Your task to perform on an android device: turn pop-ups on in chrome Image 0: 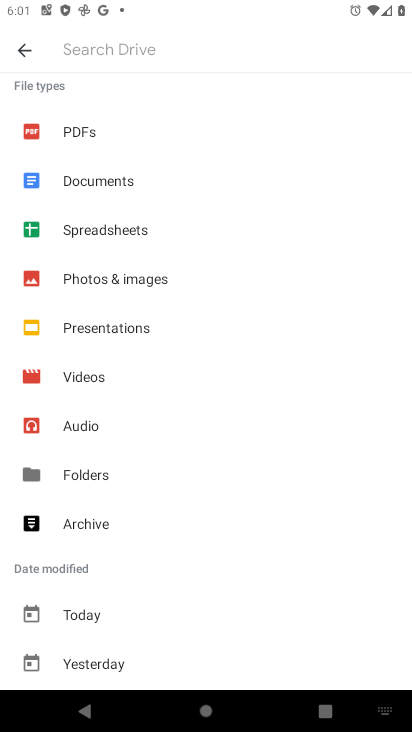
Step 0: press back button
Your task to perform on an android device: turn pop-ups on in chrome Image 1: 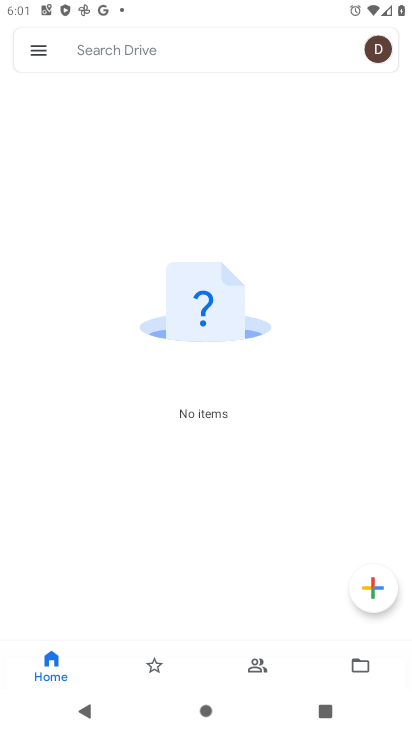
Step 1: press back button
Your task to perform on an android device: turn pop-ups on in chrome Image 2: 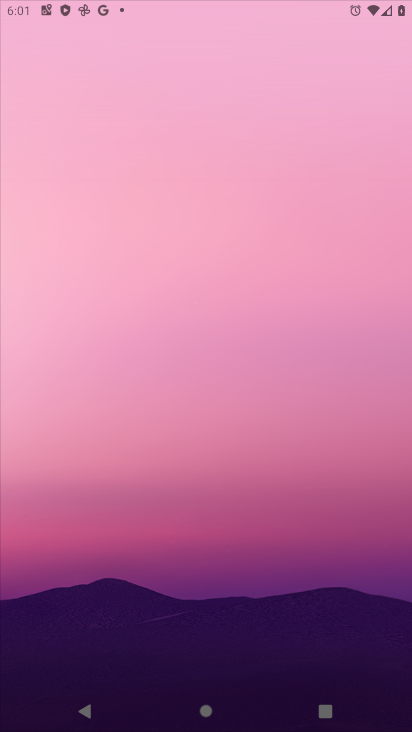
Step 2: press home button
Your task to perform on an android device: turn pop-ups on in chrome Image 3: 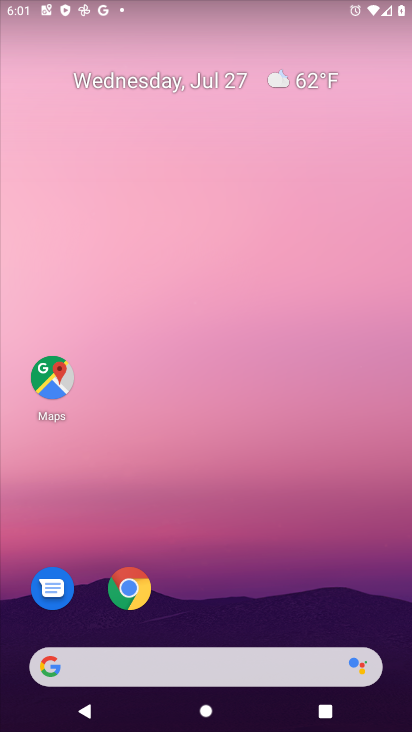
Step 3: click (131, 599)
Your task to perform on an android device: turn pop-ups on in chrome Image 4: 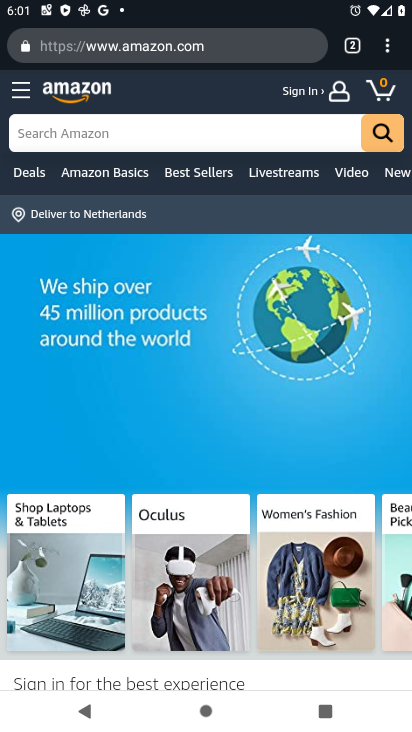
Step 4: click (390, 42)
Your task to perform on an android device: turn pop-ups on in chrome Image 5: 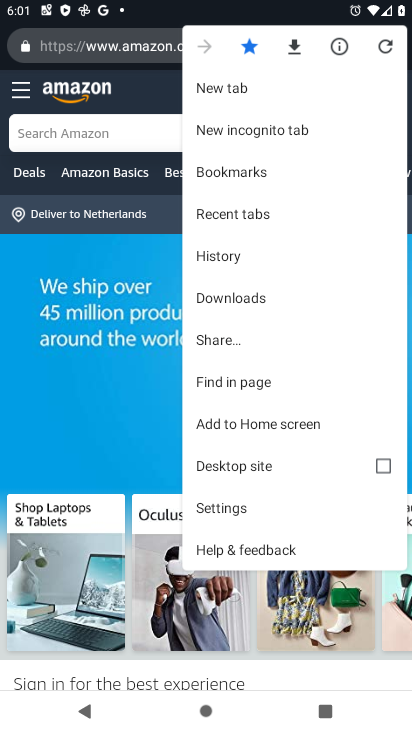
Step 5: click (228, 507)
Your task to perform on an android device: turn pop-ups on in chrome Image 6: 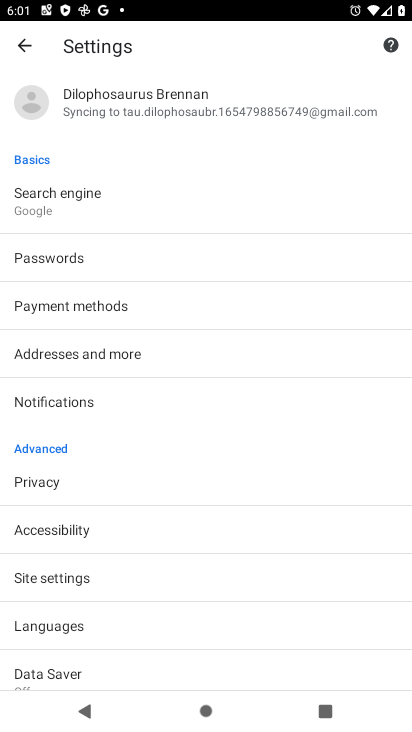
Step 6: click (55, 578)
Your task to perform on an android device: turn pop-ups on in chrome Image 7: 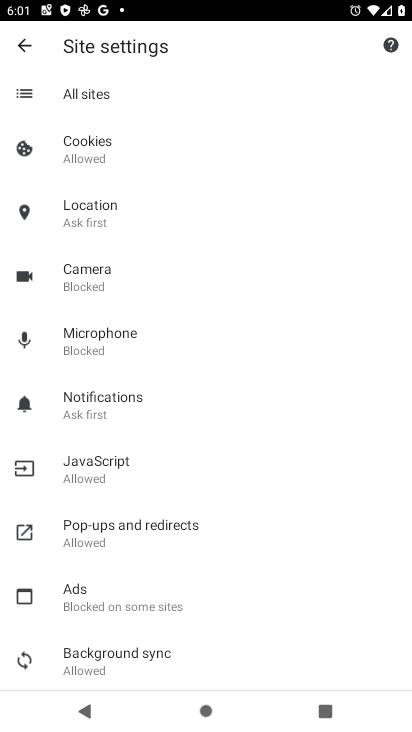
Step 7: click (168, 530)
Your task to perform on an android device: turn pop-ups on in chrome Image 8: 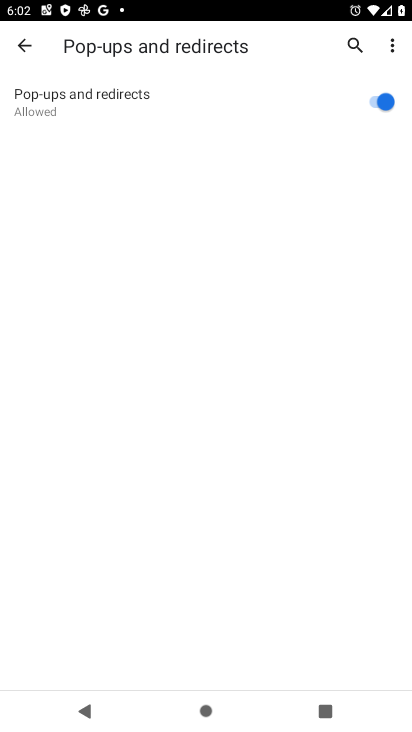
Step 8: task complete